Your task to perform on an android device: all mails in gmail Image 0: 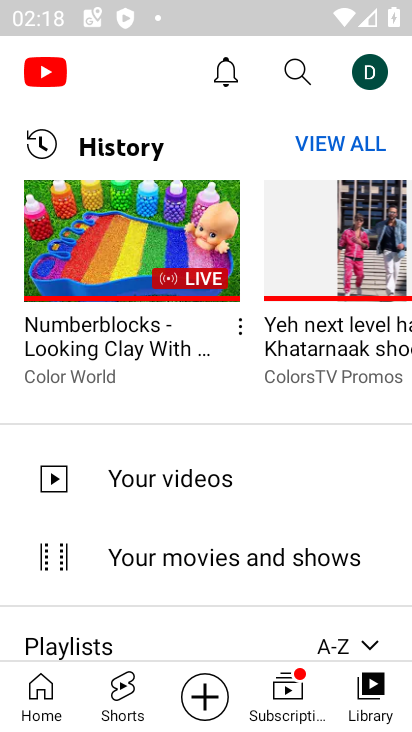
Step 0: press back button
Your task to perform on an android device: all mails in gmail Image 1: 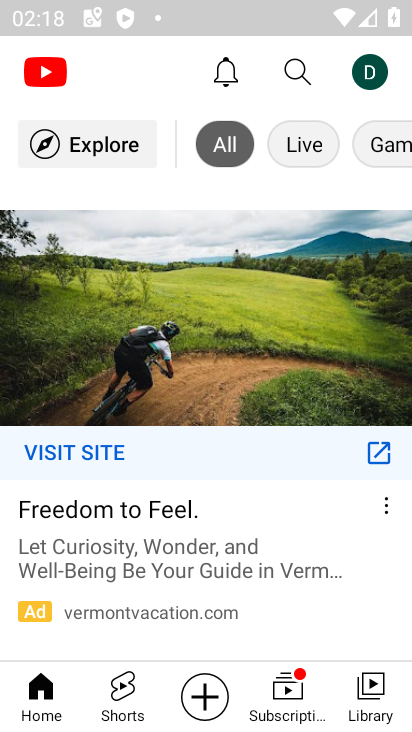
Step 1: press back button
Your task to perform on an android device: all mails in gmail Image 2: 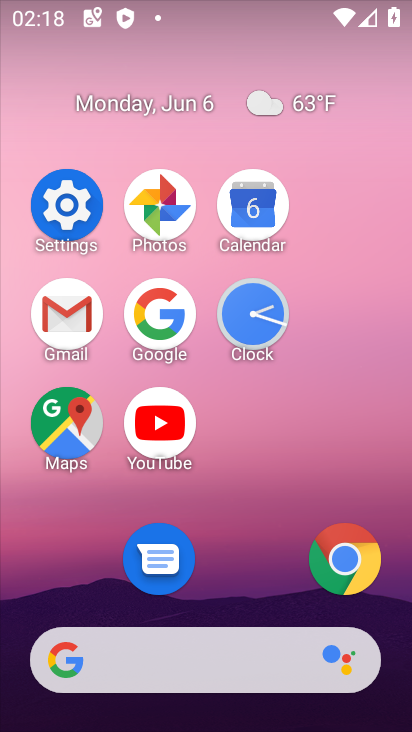
Step 2: click (87, 307)
Your task to perform on an android device: all mails in gmail Image 3: 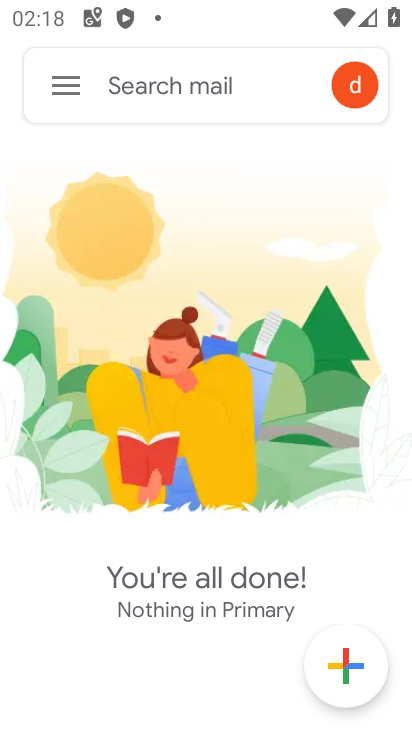
Step 3: click (57, 73)
Your task to perform on an android device: all mails in gmail Image 4: 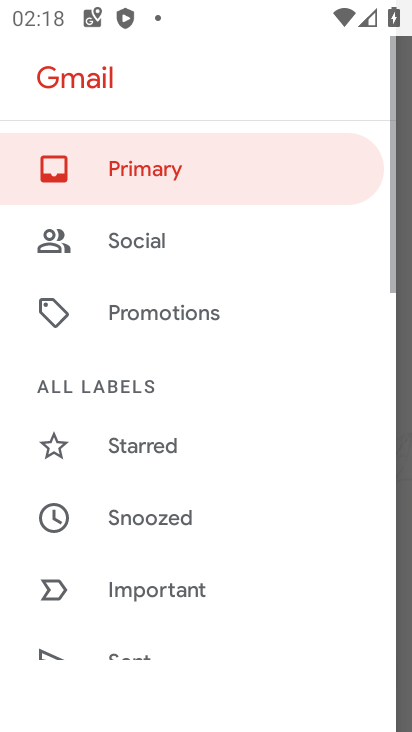
Step 4: drag from (190, 536) to (227, 157)
Your task to perform on an android device: all mails in gmail Image 5: 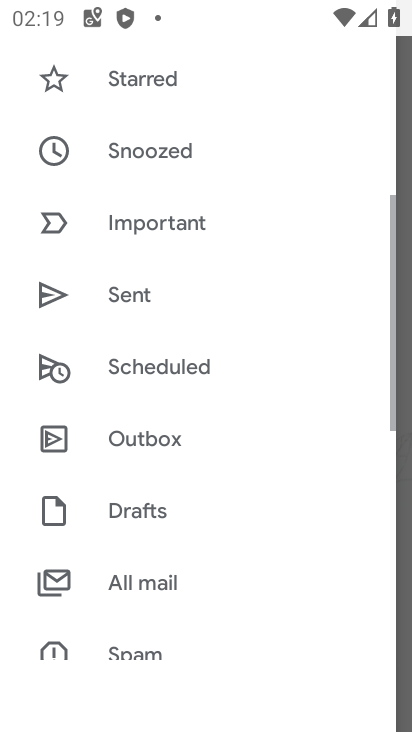
Step 5: click (186, 591)
Your task to perform on an android device: all mails in gmail Image 6: 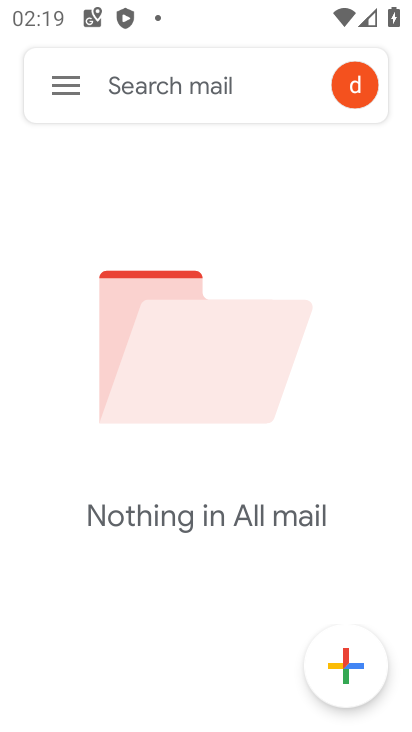
Step 6: task complete